Your task to perform on an android device: change the clock display to digital Image 0: 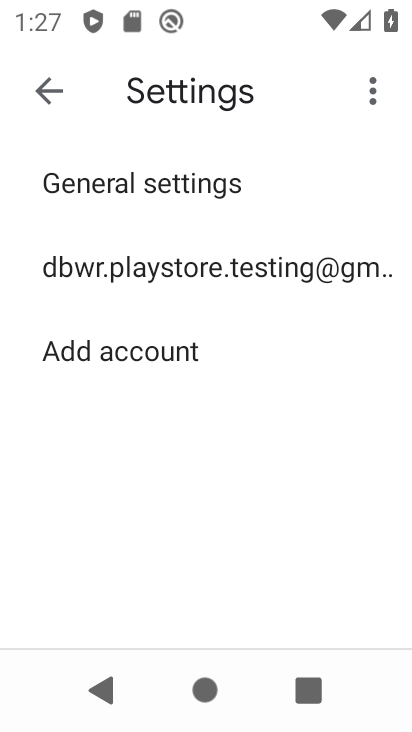
Step 0: press home button
Your task to perform on an android device: change the clock display to digital Image 1: 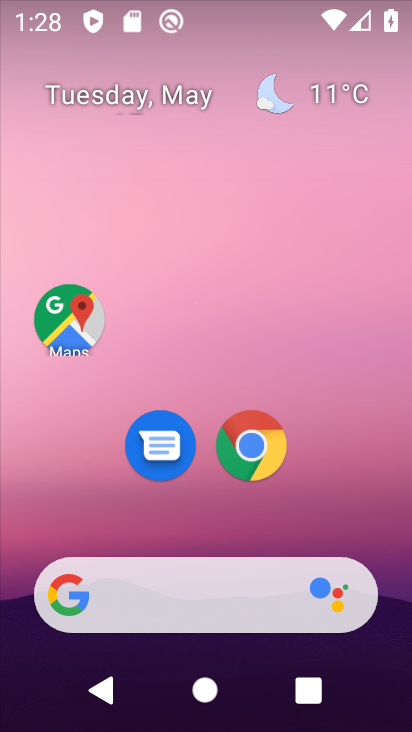
Step 1: drag from (364, 504) to (307, 143)
Your task to perform on an android device: change the clock display to digital Image 2: 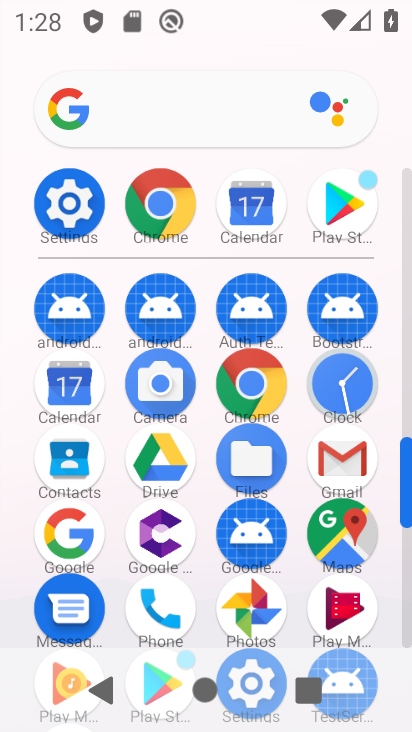
Step 2: click (333, 378)
Your task to perform on an android device: change the clock display to digital Image 3: 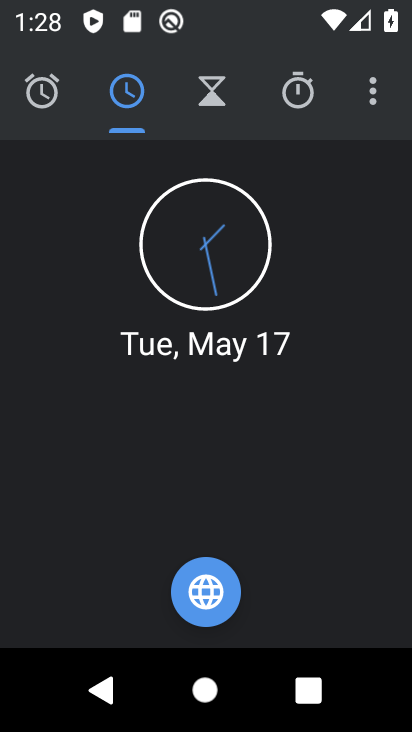
Step 3: click (380, 95)
Your task to perform on an android device: change the clock display to digital Image 4: 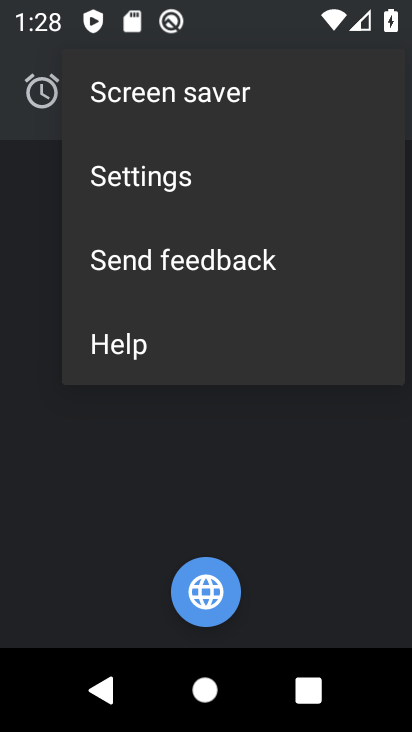
Step 4: click (131, 189)
Your task to perform on an android device: change the clock display to digital Image 5: 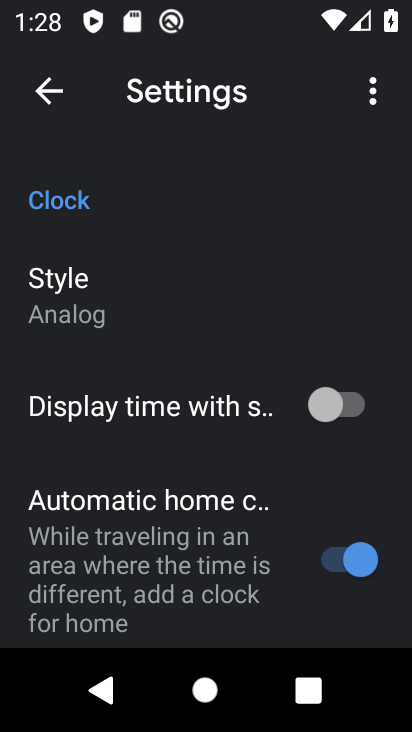
Step 5: click (123, 283)
Your task to perform on an android device: change the clock display to digital Image 6: 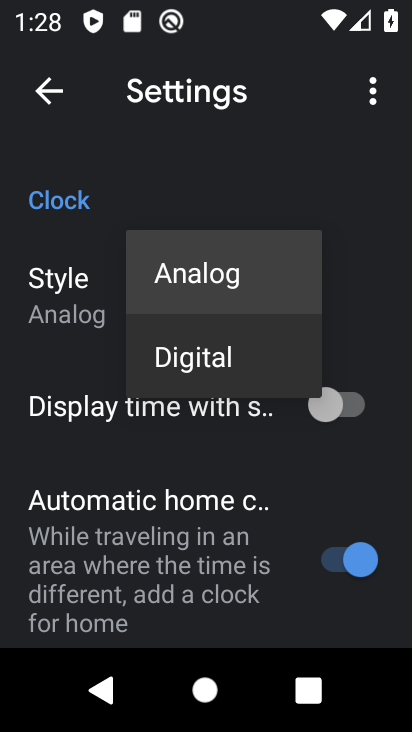
Step 6: click (213, 360)
Your task to perform on an android device: change the clock display to digital Image 7: 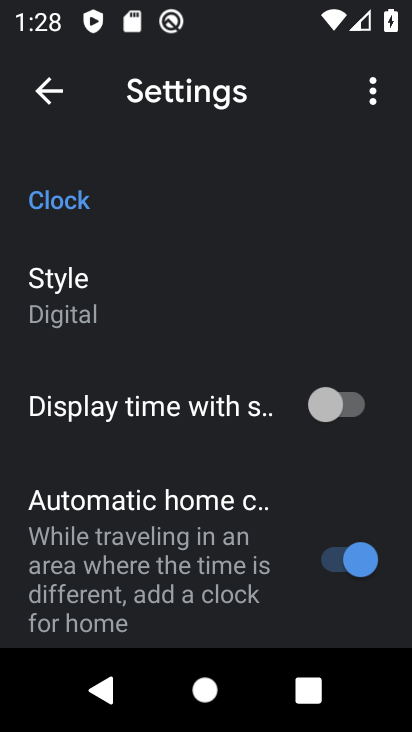
Step 7: task complete